Your task to perform on an android device: check battery use Image 0: 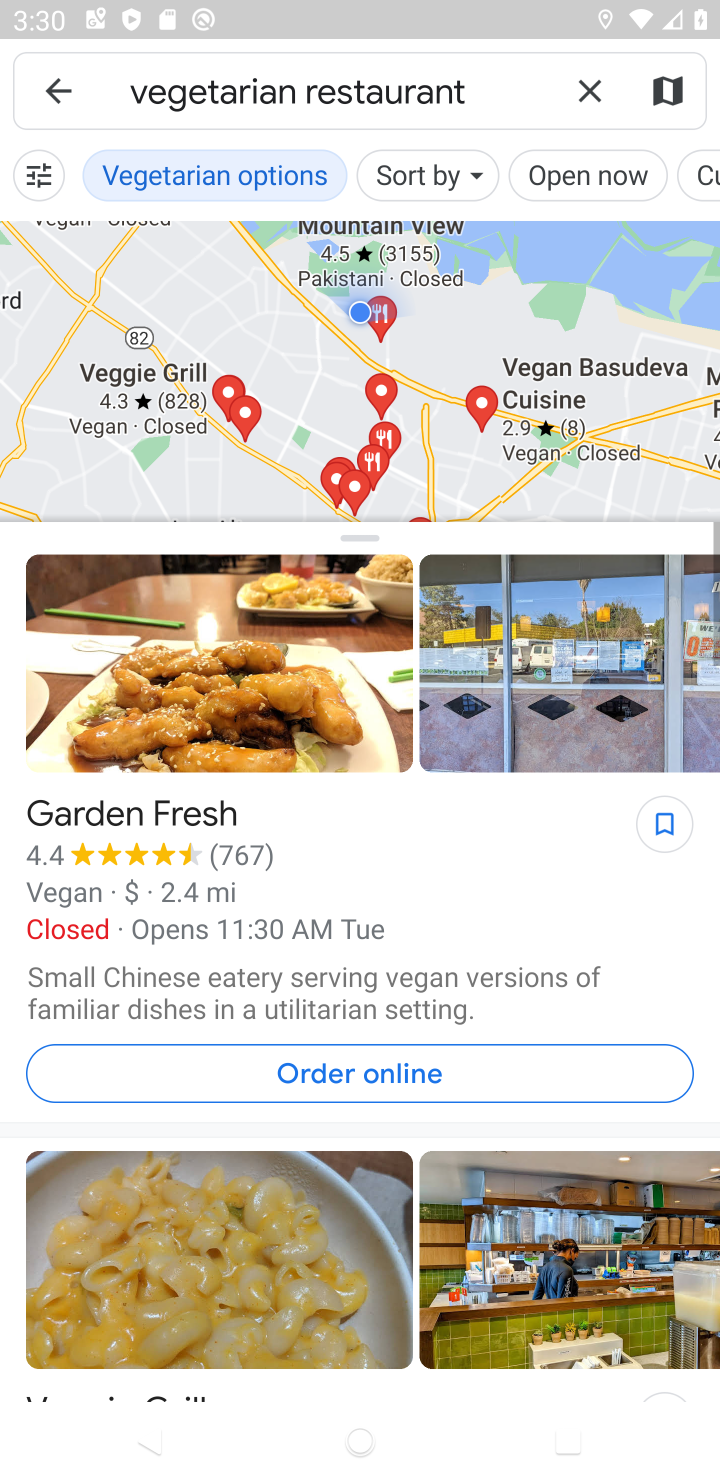
Step 0: press home button
Your task to perform on an android device: check battery use Image 1: 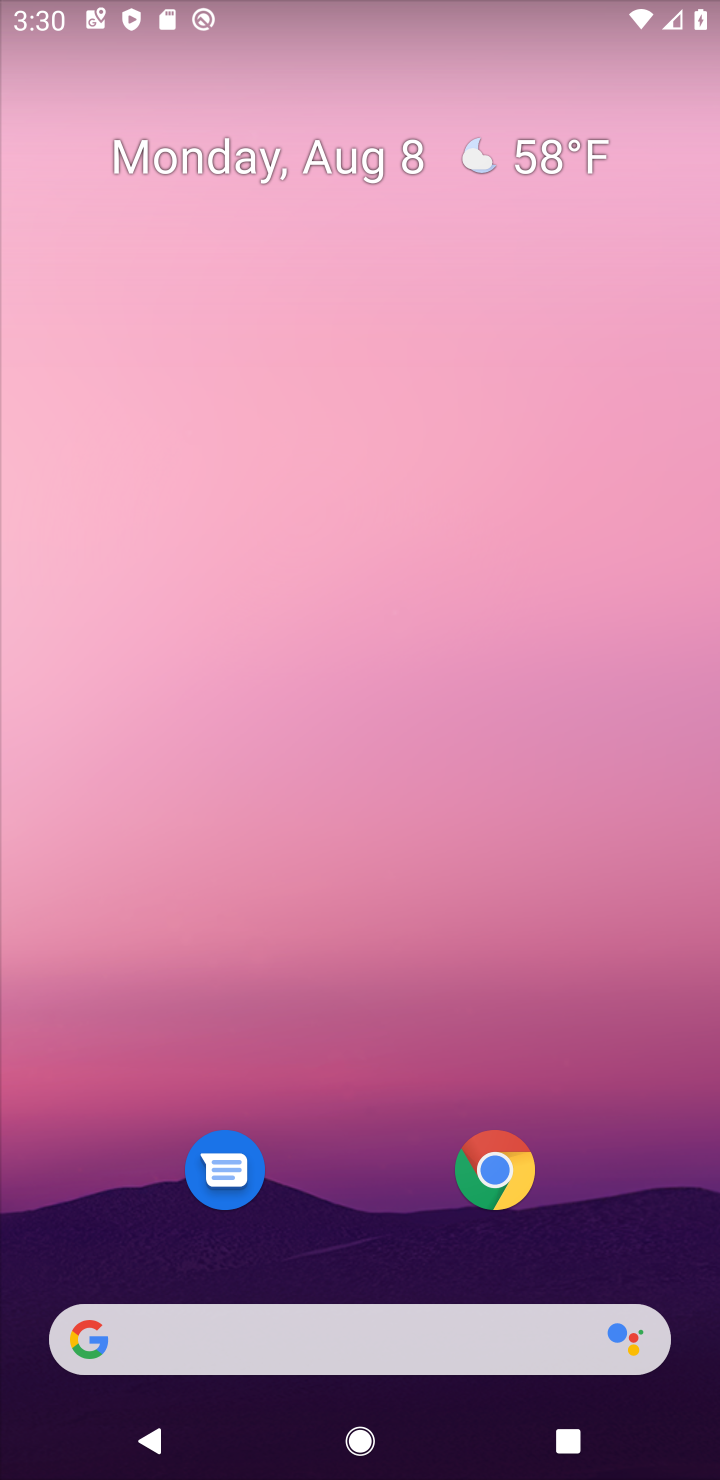
Step 1: drag from (399, 1196) to (392, 393)
Your task to perform on an android device: check battery use Image 2: 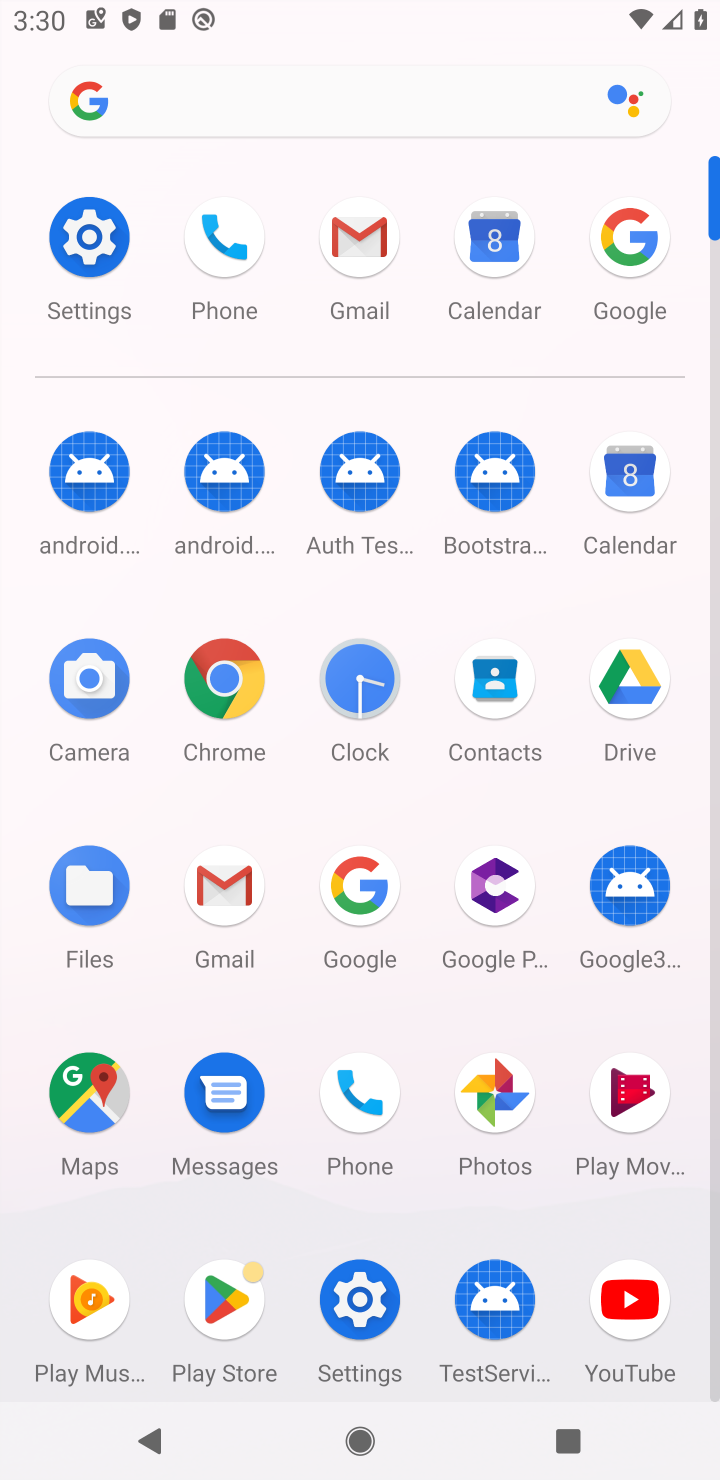
Step 2: click (118, 246)
Your task to perform on an android device: check battery use Image 3: 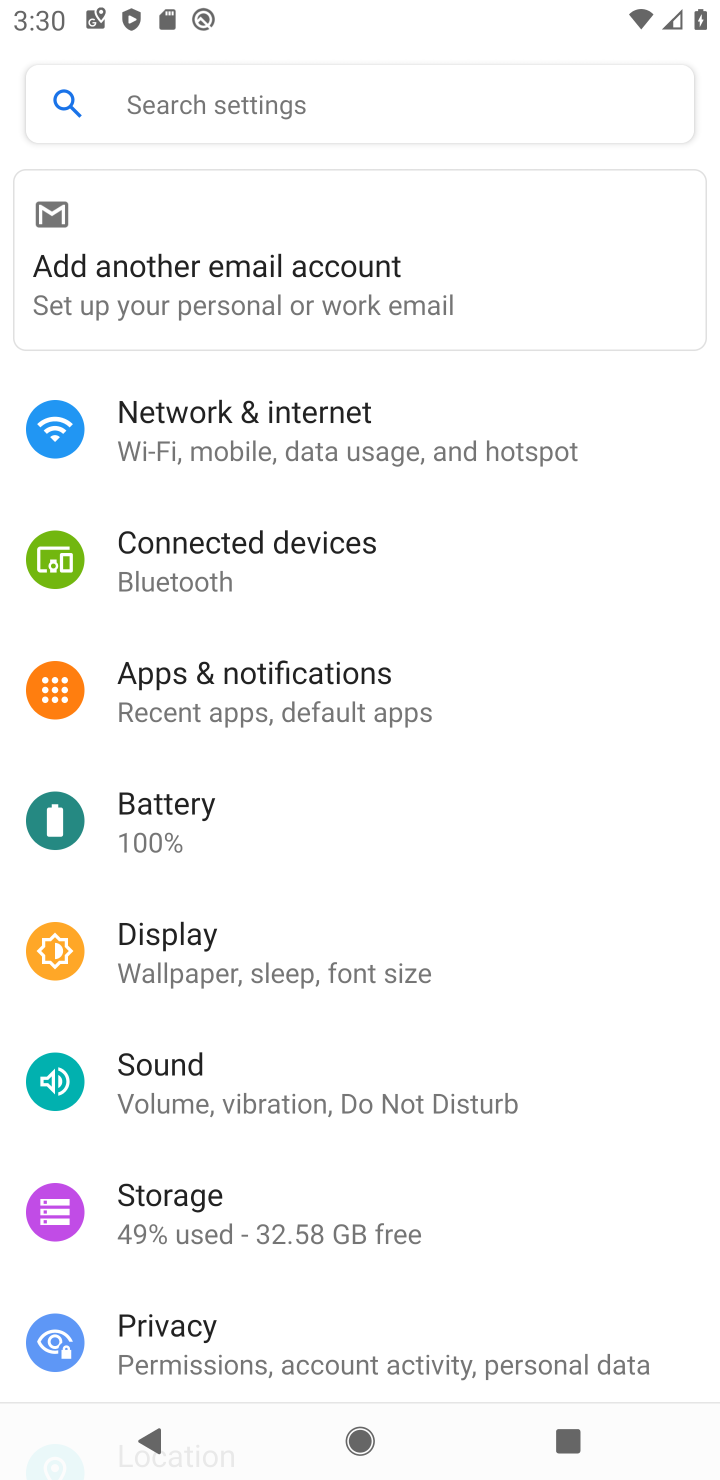
Step 3: click (229, 822)
Your task to perform on an android device: check battery use Image 4: 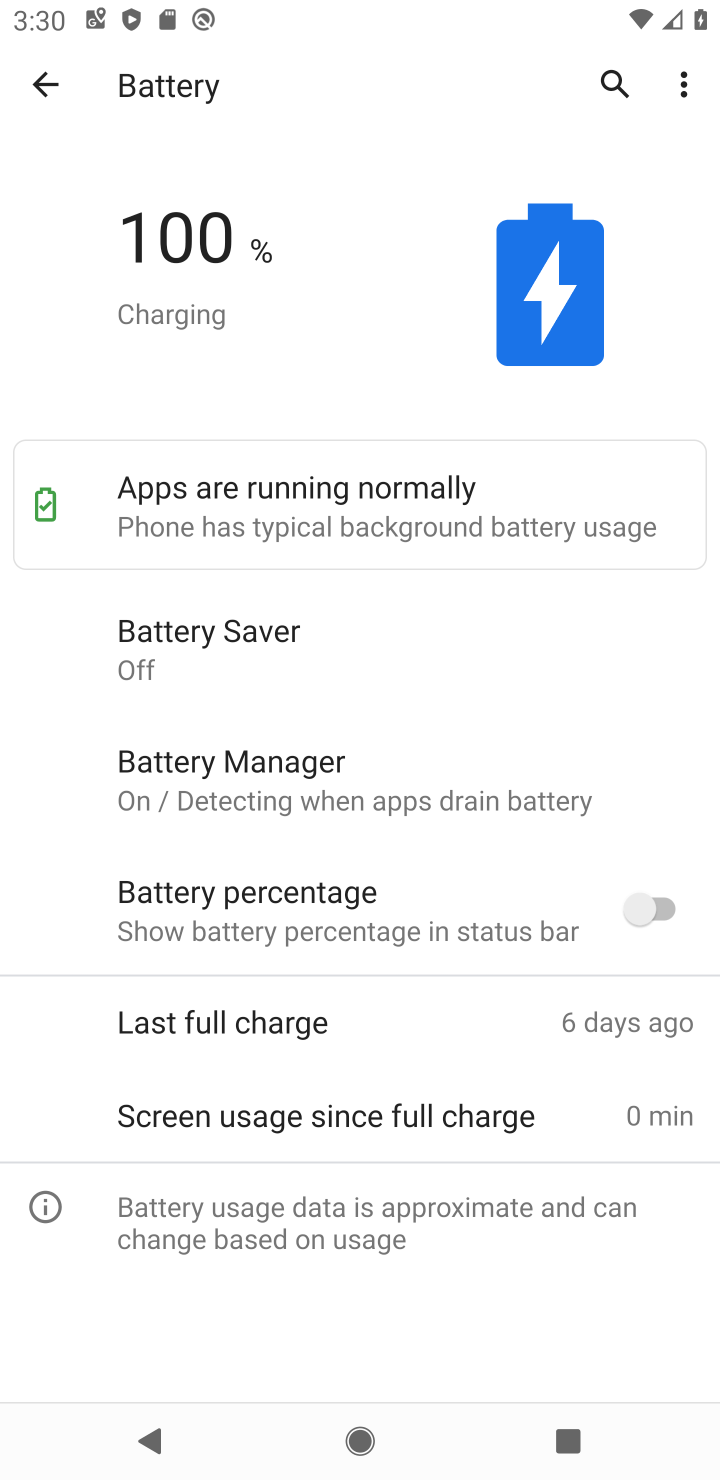
Step 4: click (684, 84)
Your task to perform on an android device: check battery use Image 5: 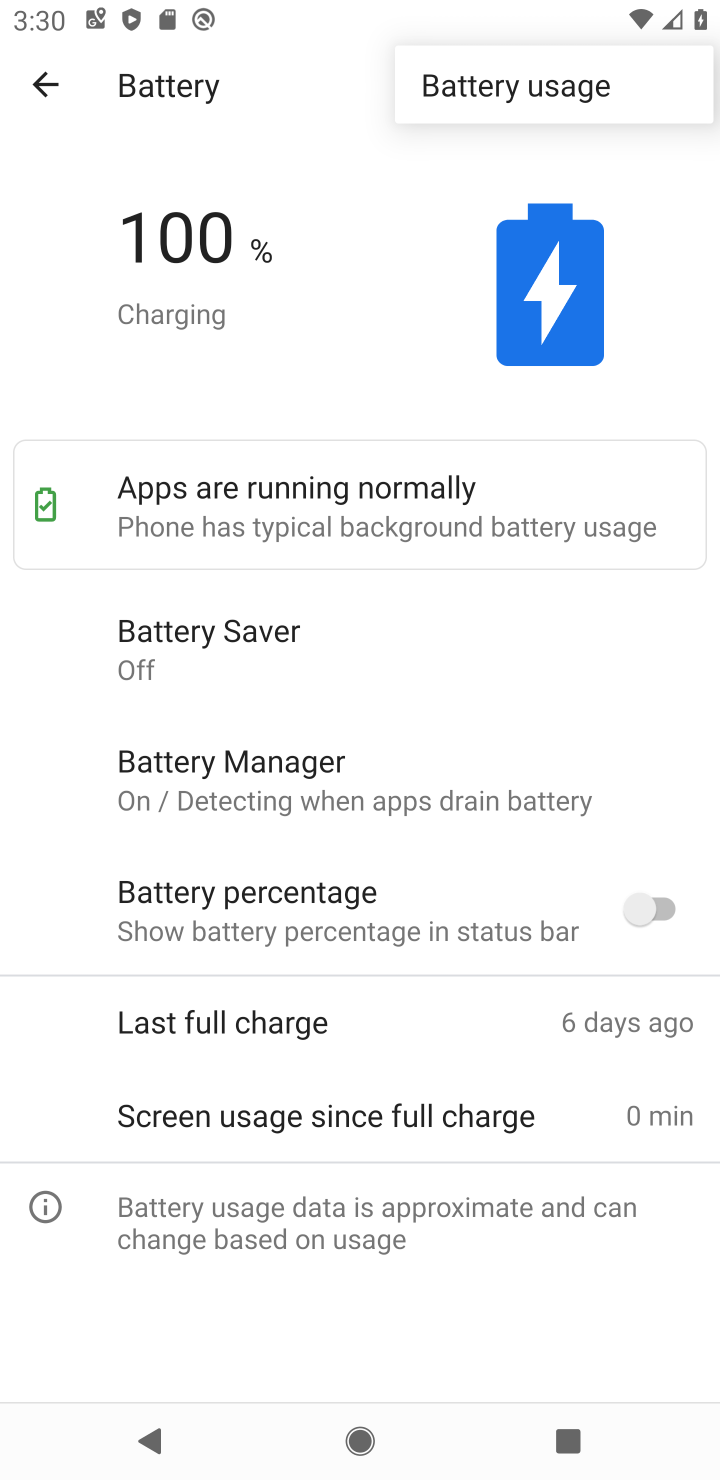
Step 5: click (597, 100)
Your task to perform on an android device: check battery use Image 6: 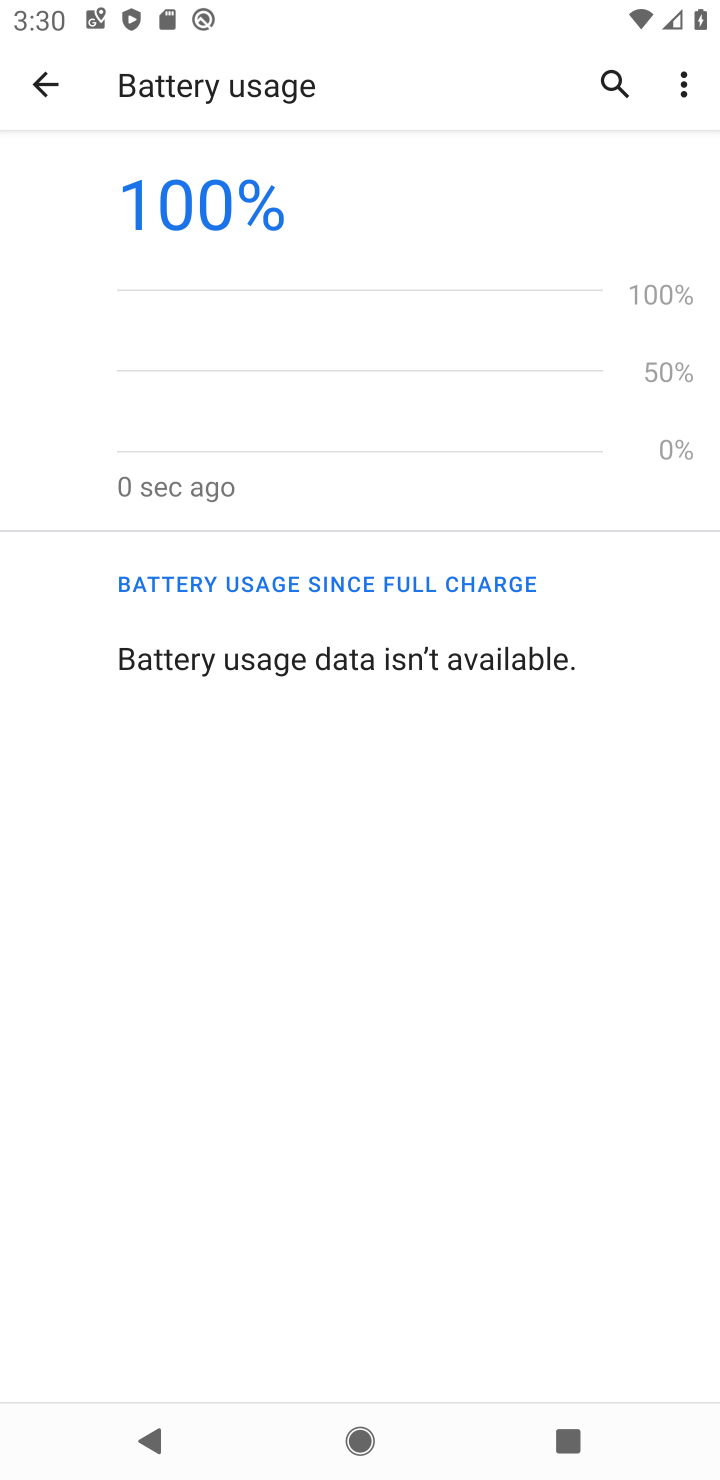
Step 6: task complete